Your task to perform on an android device: set the stopwatch Image 0: 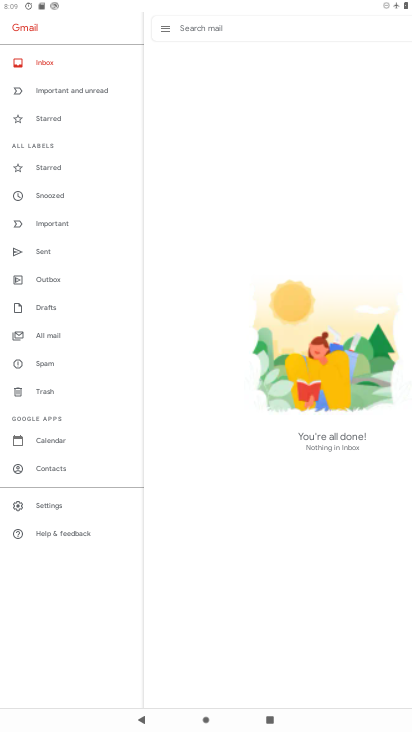
Step 0: press home button
Your task to perform on an android device: set the stopwatch Image 1: 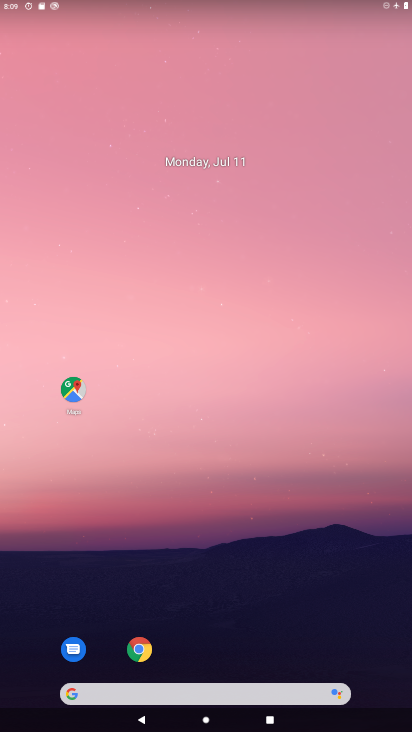
Step 1: drag from (229, 697) to (160, 33)
Your task to perform on an android device: set the stopwatch Image 2: 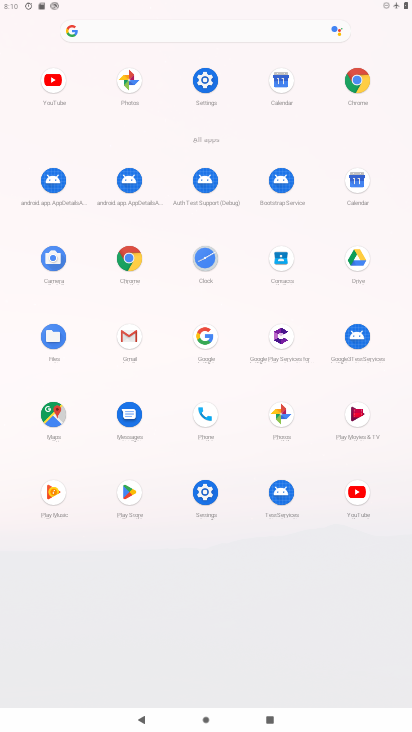
Step 2: click (205, 259)
Your task to perform on an android device: set the stopwatch Image 3: 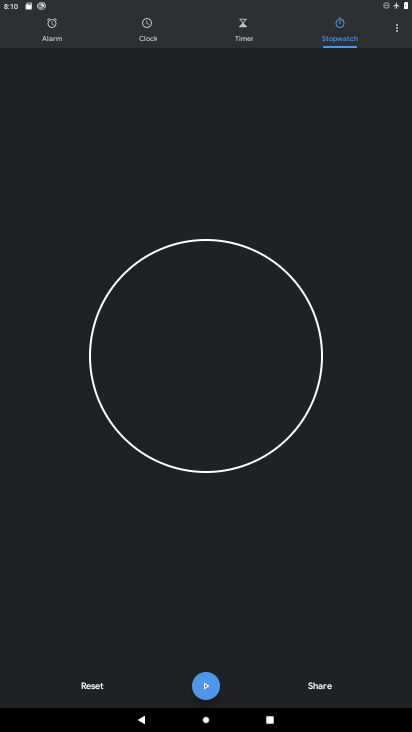
Step 3: click (93, 683)
Your task to perform on an android device: set the stopwatch Image 4: 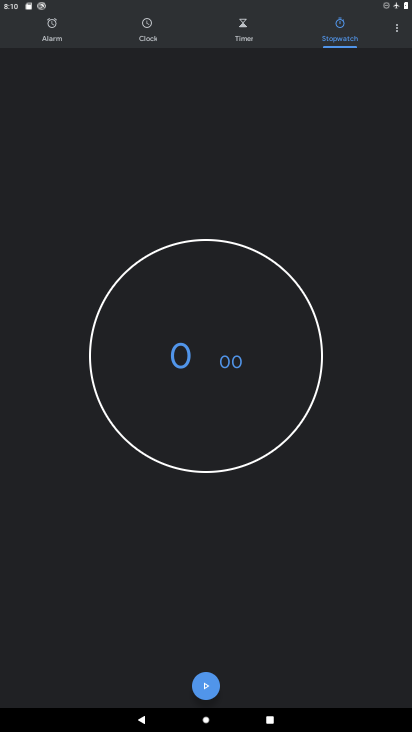
Step 4: click (93, 683)
Your task to perform on an android device: set the stopwatch Image 5: 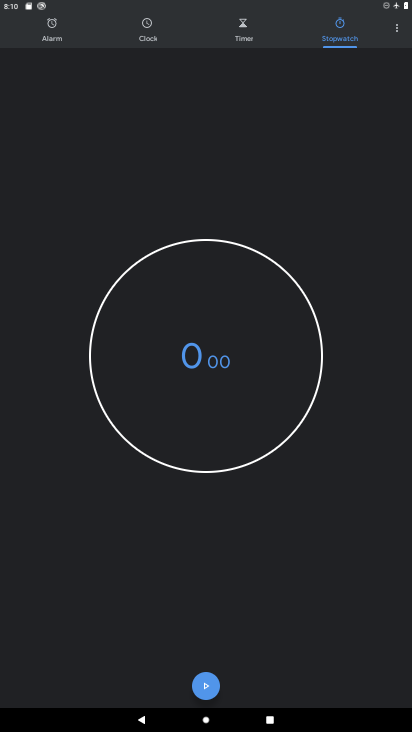
Step 5: click (207, 682)
Your task to perform on an android device: set the stopwatch Image 6: 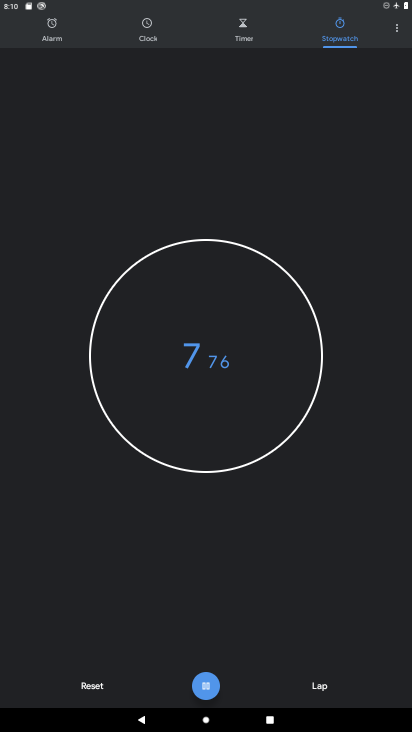
Step 6: click (207, 682)
Your task to perform on an android device: set the stopwatch Image 7: 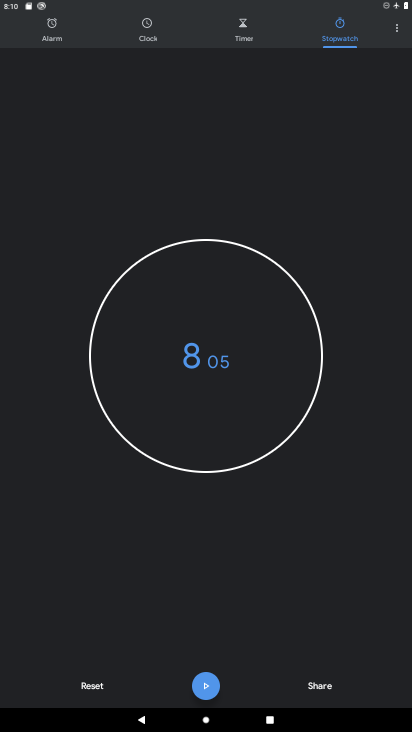
Step 7: task complete